Your task to perform on an android device: choose inbox layout in the gmail app Image 0: 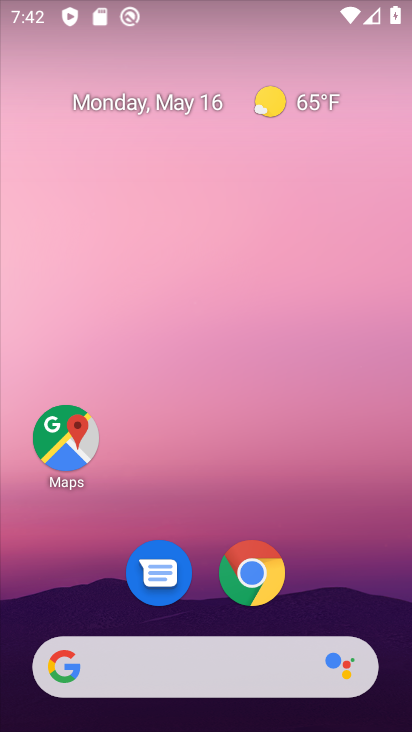
Step 0: drag from (309, 618) to (339, 21)
Your task to perform on an android device: choose inbox layout in the gmail app Image 1: 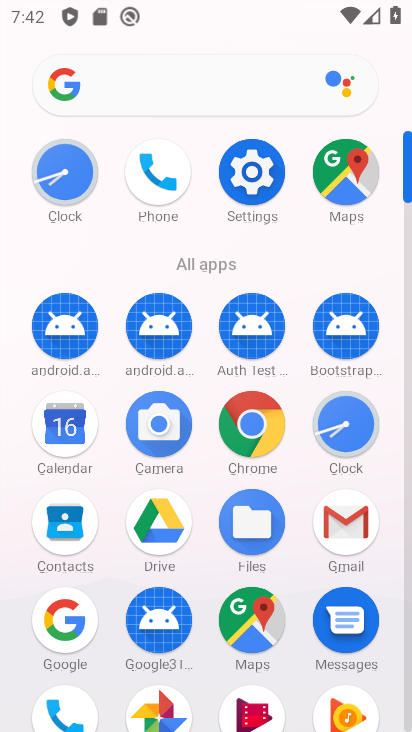
Step 1: click (350, 515)
Your task to perform on an android device: choose inbox layout in the gmail app Image 2: 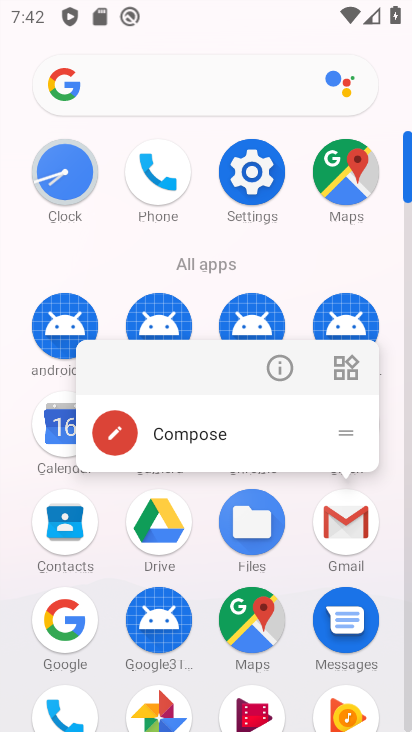
Step 2: click (350, 523)
Your task to perform on an android device: choose inbox layout in the gmail app Image 3: 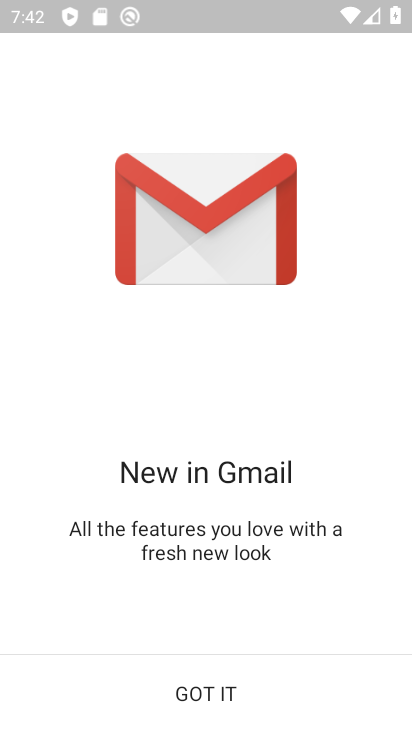
Step 3: click (228, 707)
Your task to perform on an android device: choose inbox layout in the gmail app Image 4: 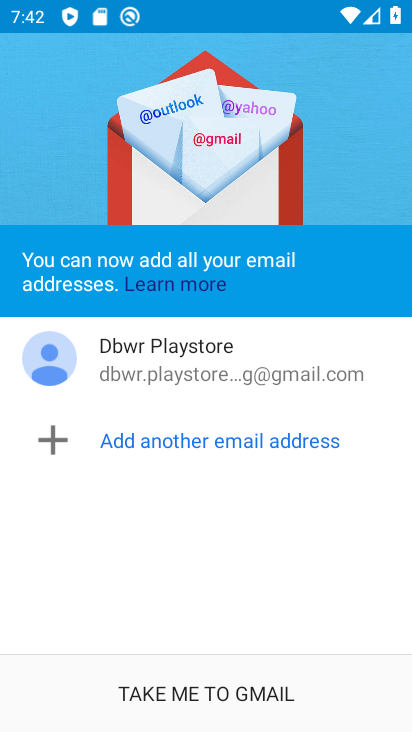
Step 4: click (228, 704)
Your task to perform on an android device: choose inbox layout in the gmail app Image 5: 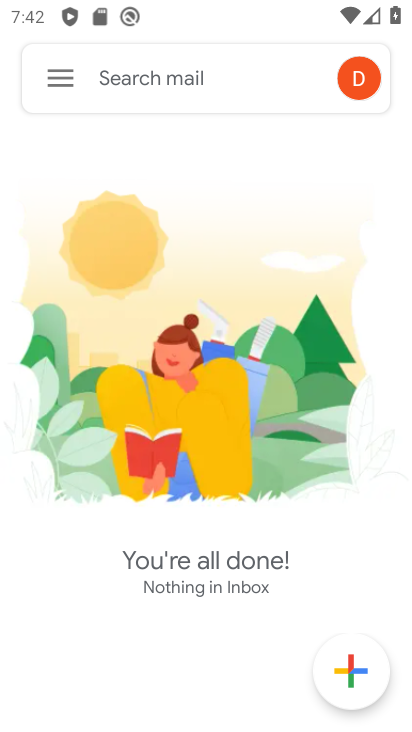
Step 5: click (55, 85)
Your task to perform on an android device: choose inbox layout in the gmail app Image 6: 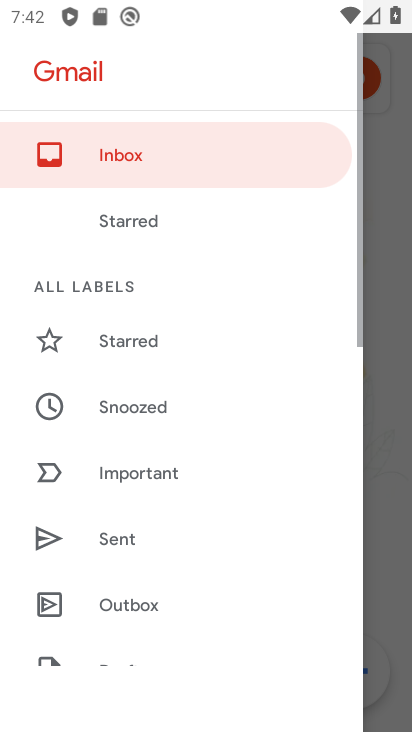
Step 6: drag from (187, 560) to (208, 380)
Your task to perform on an android device: choose inbox layout in the gmail app Image 7: 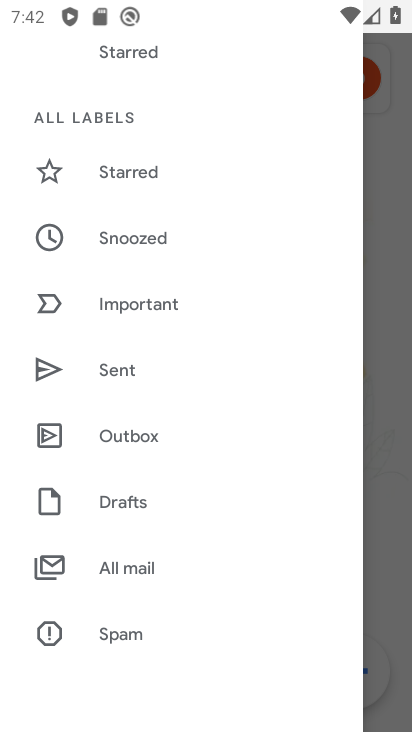
Step 7: drag from (198, 535) to (214, 346)
Your task to perform on an android device: choose inbox layout in the gmail app Image 8: 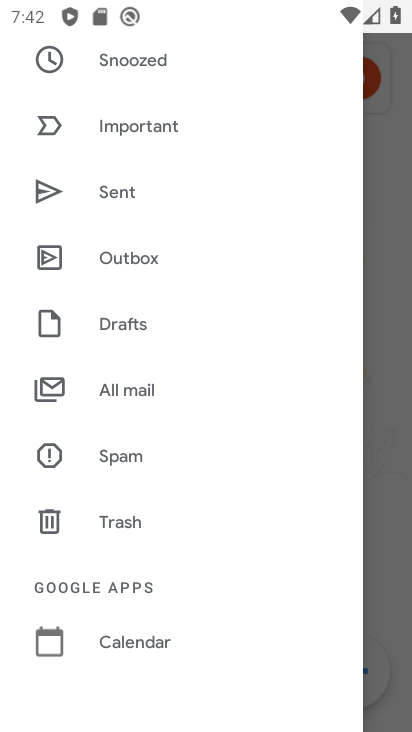
Step 8: drag from (176, 601) to (196, 445)
Your task to perform on an android device: choose inbox layout in the gmail app Image 9: 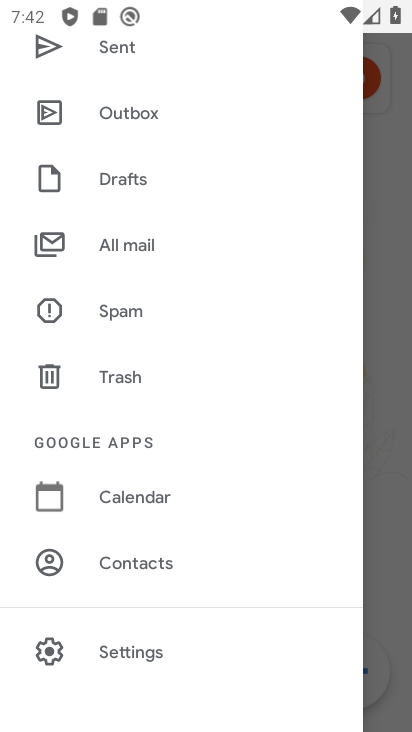
Step 9: click (190, 647)
Your task to perform on an android device: choose inbox layout in the gmail app Image 10: 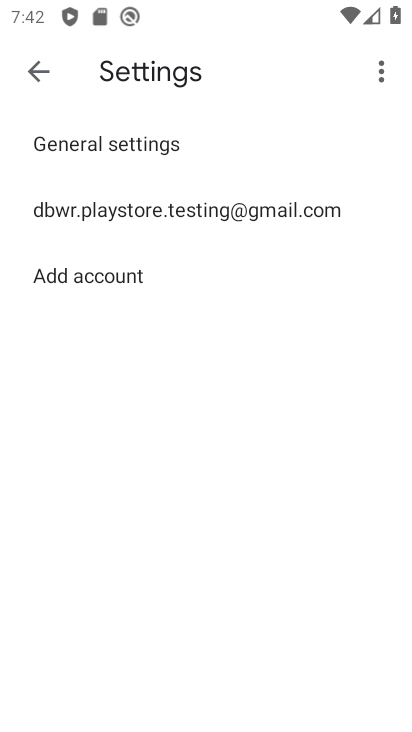
Step 10: click (180, 223)
Your task to perform on an android device: choose inbox layout in the gmail app Image 11: 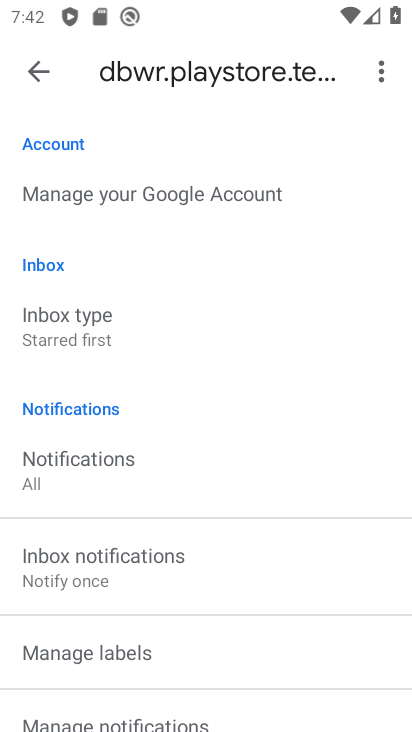
Step 11: click (70, 315)
Your task to perform on an android device: choose inbox layout in the gmail app Image 12: 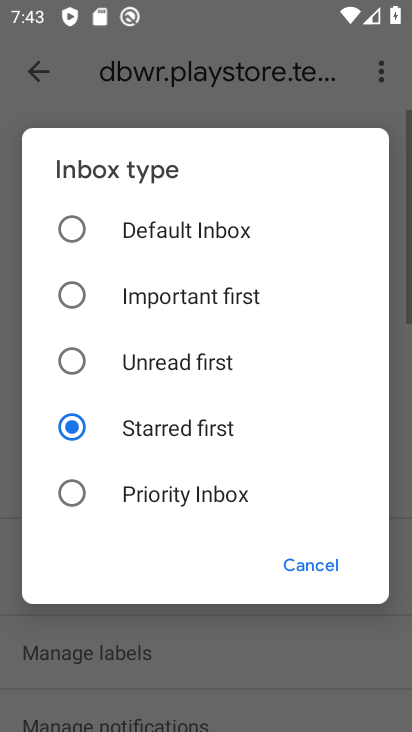
Step 12: click (183, 233)
Your task to perform on an android device: choose inbox layout in the gmail app Image 13: 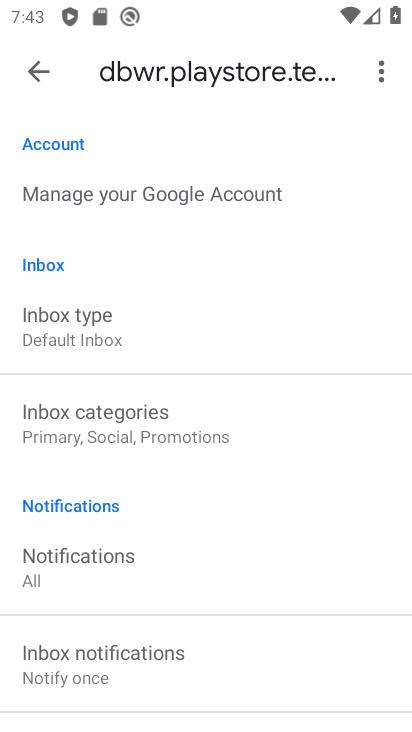
Step 13: task complete